Your task to perform on an android device: open chrome and create a bookmark for the current page Image 0: 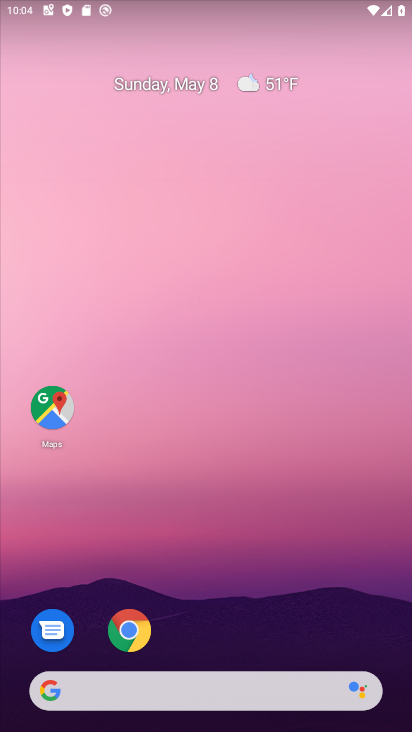
Step 0: drag from (359, 640) to (271, 41)
Your task to perform on an android device: open chrome and create a bookmark for the current page Image 1: 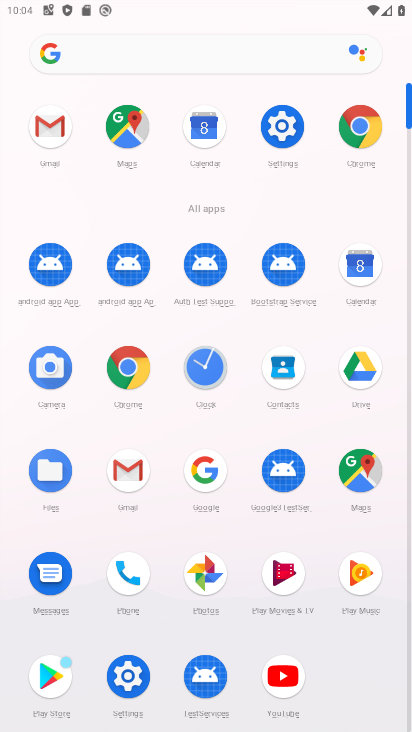
Step 1: click (358, 124)
Your task to perform on an android device: open chrome and create a bookmark for the current page Image 2: 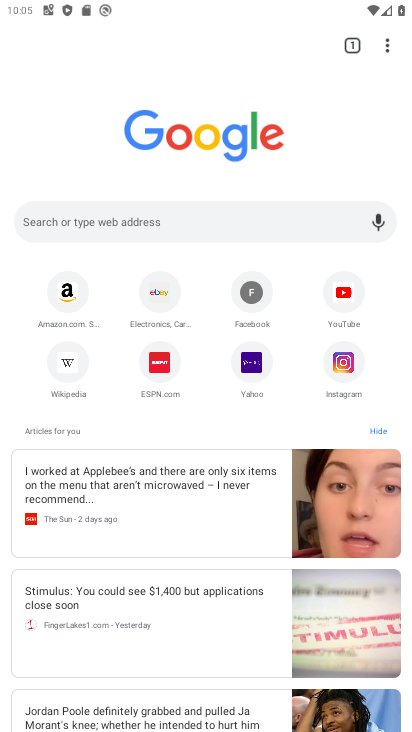
Step 2: click (386, 41)
Your task to perform on an android device: open chrome and create a bookmark for the current page Image 3: 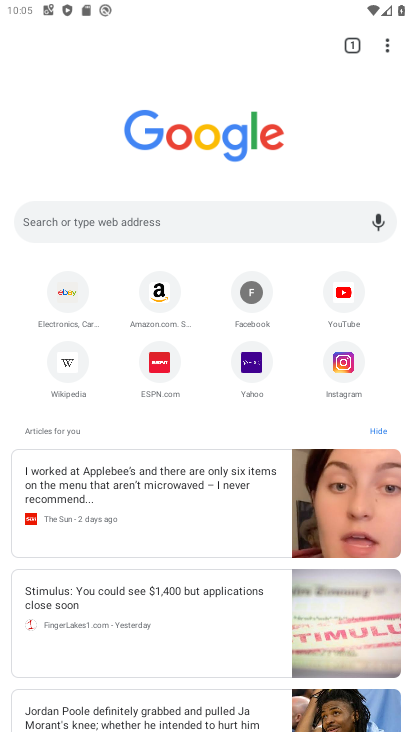
Step 3: task complete